Your task to perform on an android device: Open CNN.com Image 0: 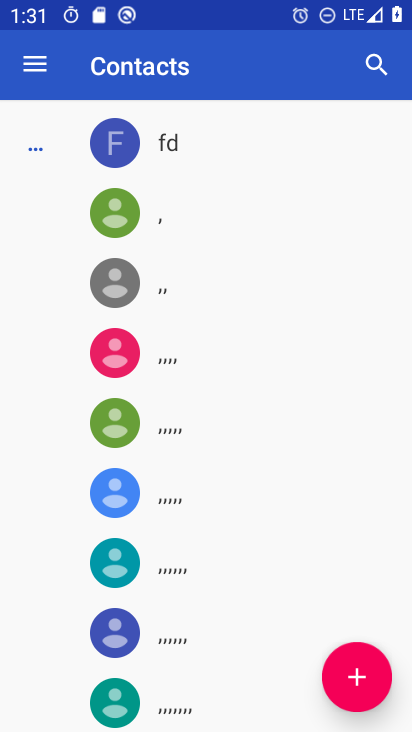
Step 0: press home button
Your task to perform on an android device: Open CNN.com Image 1: 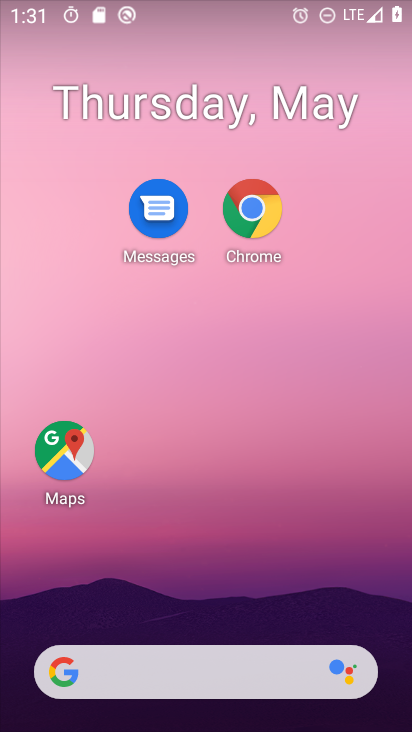
Step 1: click (249, 213)
Your task to perform on an android device: Open CNN.com Image 2: 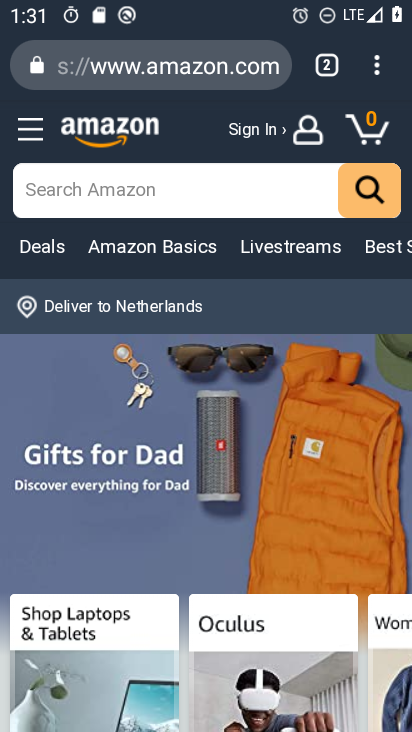
Step 2: click (187, 59)
Your task to perform on an android device: Open CNN.com Image 3: 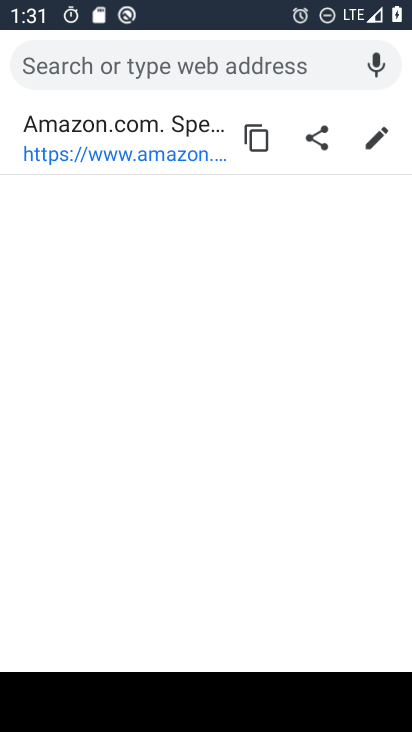
Step 3: type "www.cnn.com"
Your task to perform on an android device: Open CNN.com Image 4: 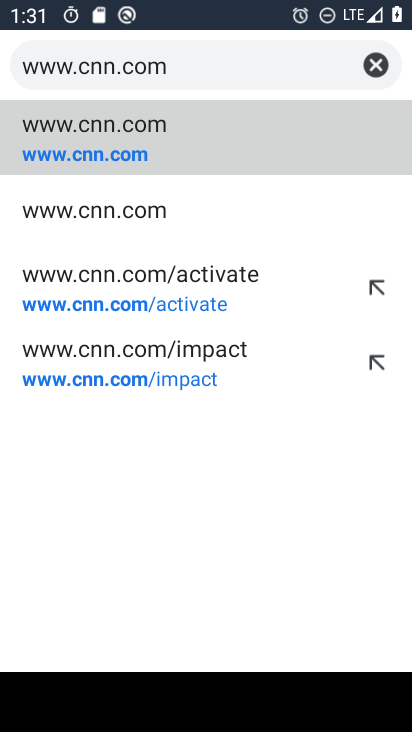
Step 4: click (103, 154)
Your task to perform on an android device: Open CNN.com Image 5: 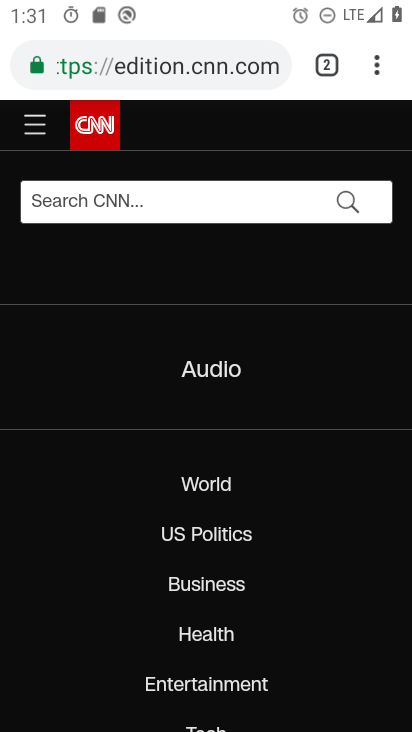
Step 5: task complete